Your task to perform on an android device: empty trash in the gmail app Image 0: 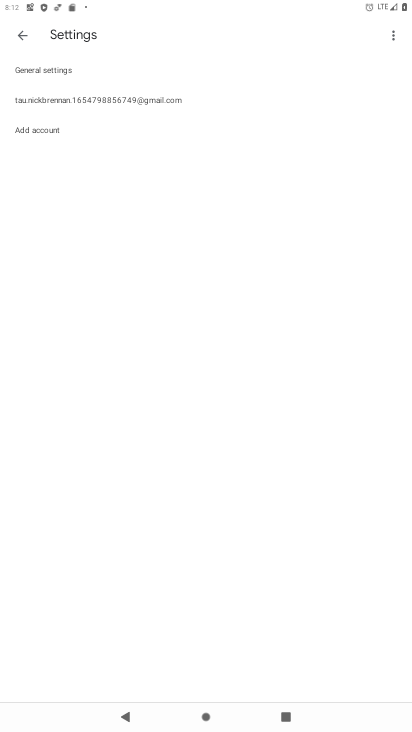
Step 0: press home button
Your task to perform on an android device: empty trash in the gmail app Image 1: 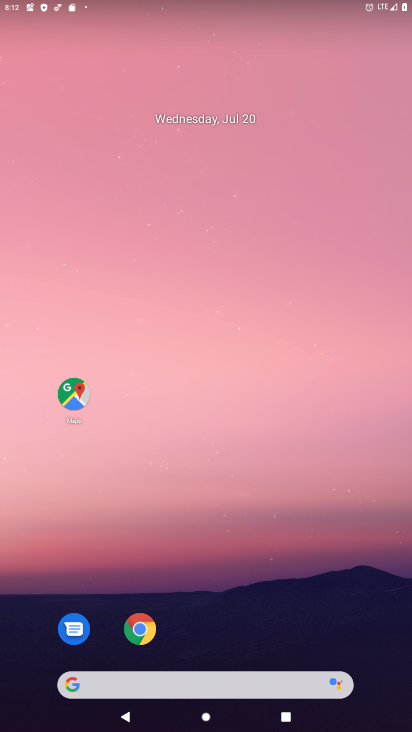
Step 1: drag from (186, 628) to (205, 155)
Your task to perform on an android device: empty trash in the gmail app Image 2: 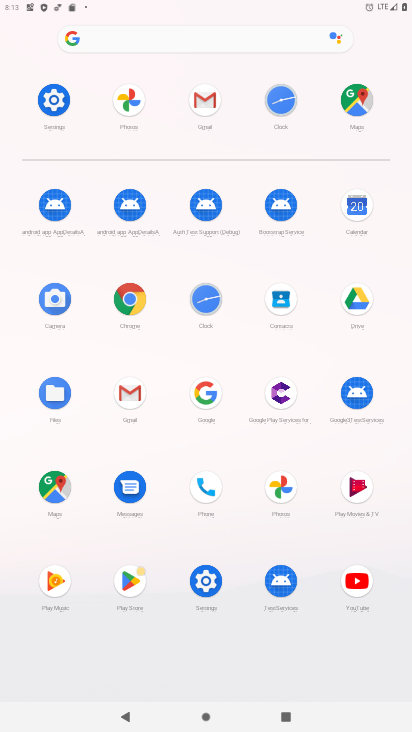
Step 2: click (202, 113)
Your task to perform on an android device: empty trash in the gmail app Image 3: 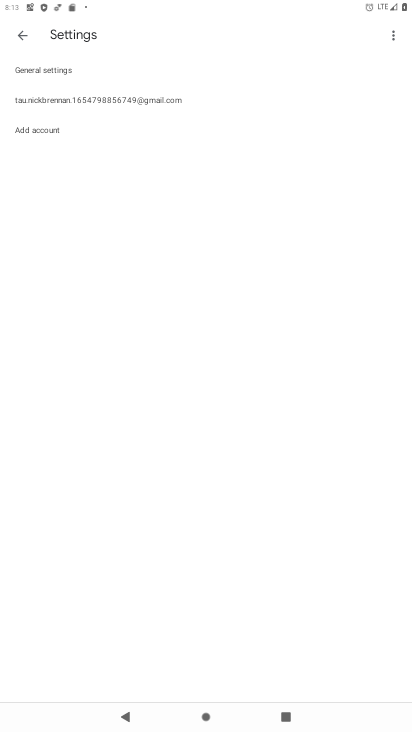
Step 3: click (27, 34)
Your task to perform on an android device: empty trash in the gmail app Image 4: 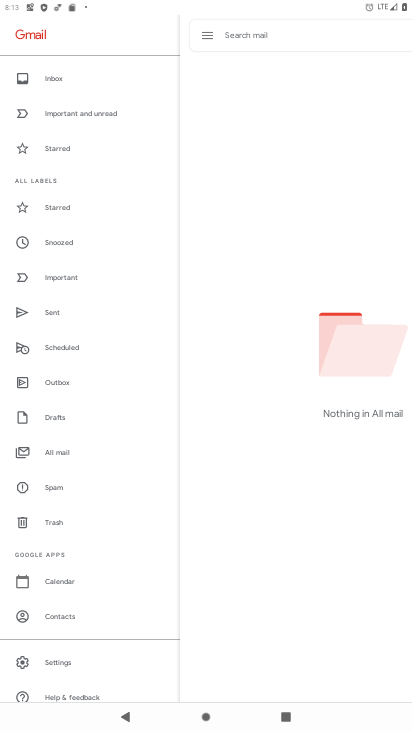
Step 4: click (46, 518)
Your task to perform on an android device: empty trash in the gmail app Image 5: 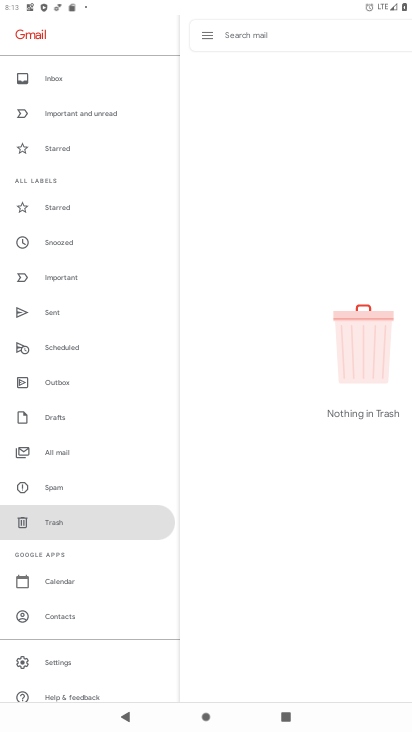
Step 5: task complete